Your task to perform on an android device: toggle translation in the chrome app Image 0: 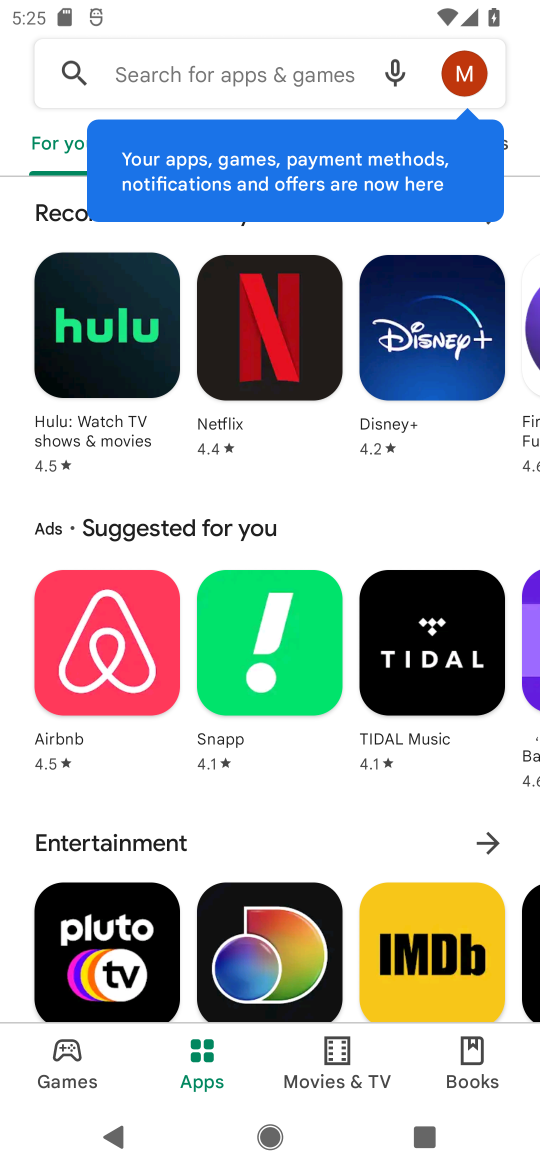
Step 0: press home button
Your task to perform on an android device: toggle translation in the chrome app Image 1: 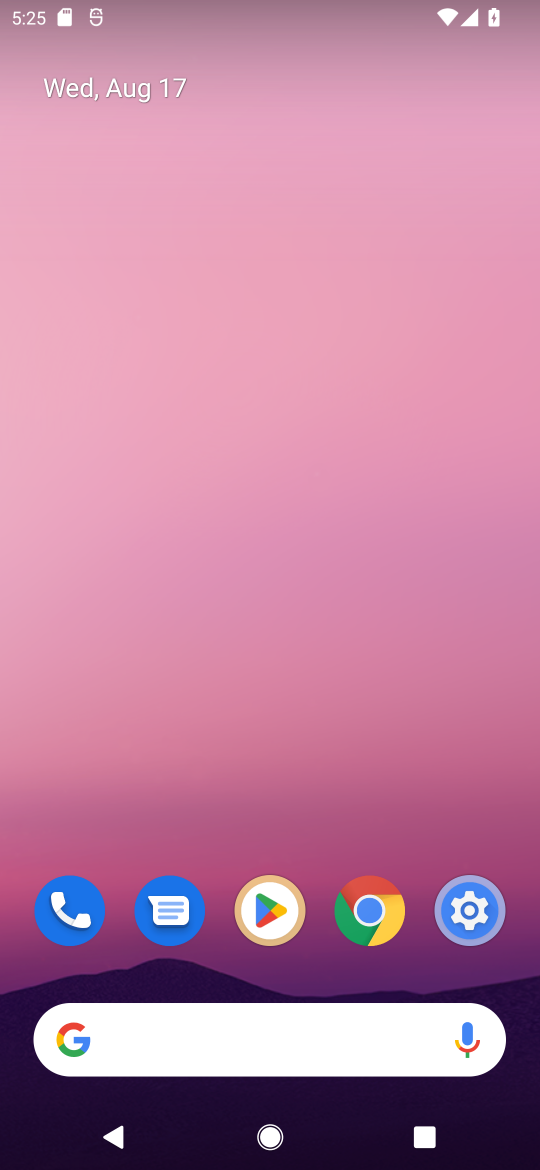
Step 1: click (369, 915)
Your task to perform on an android device: toggle translation in the chrome app Image 2: 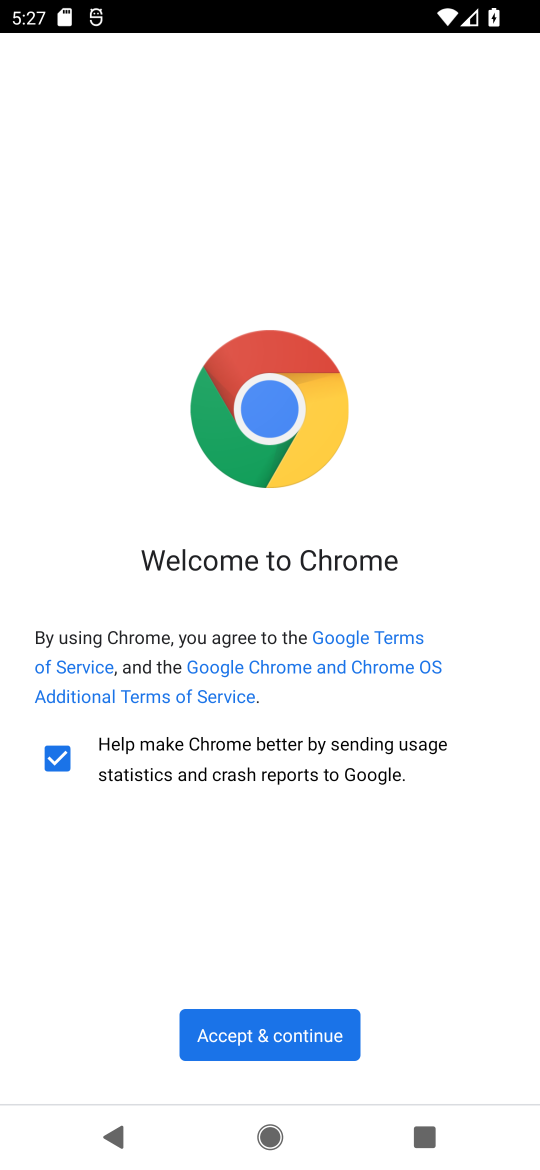
Step 2: click (192, 1030)
Your task to perform on an android device: toggle translation in the chrome app Image 3: 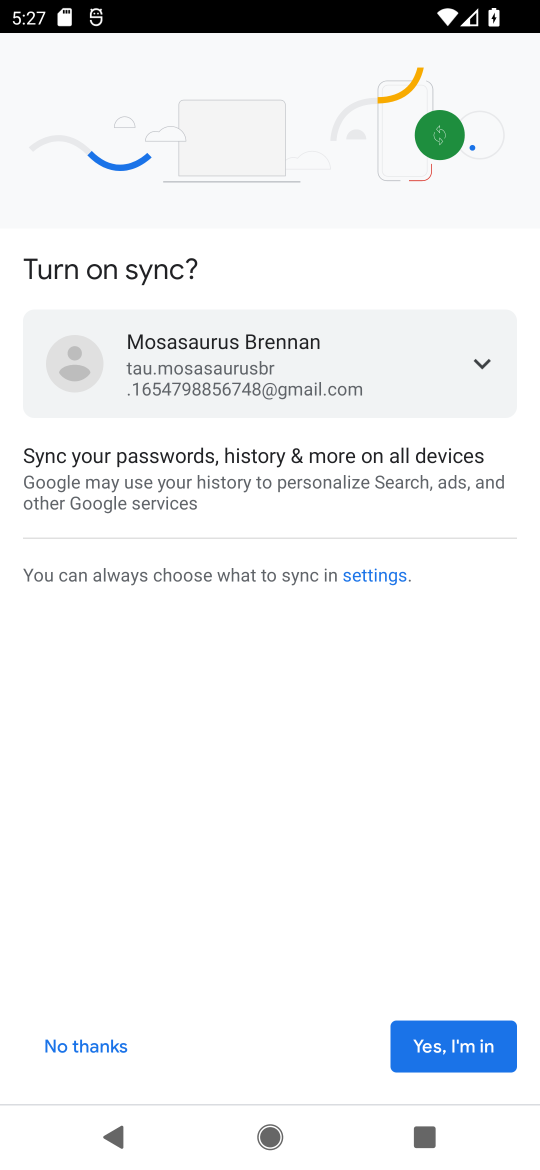
Step 3: task complete